Your task to perform on an android device: turn off javascript in the chrome app Image 0: 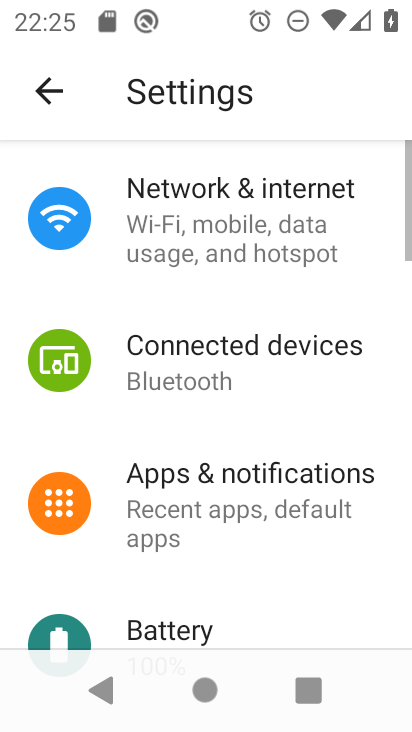
Step 0: press home button
Your task to perform on an android device: turn off javascript in the chrome app Image 1: 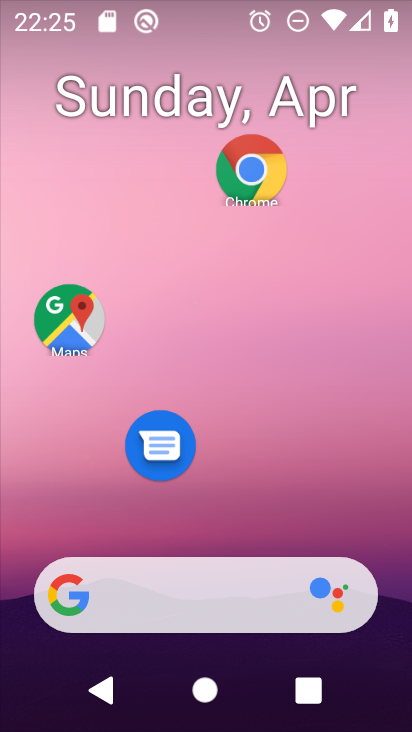
Step 1: click (250, 166)
Your task to perform on an android device: turn off javascript in the chrome app Image 2: 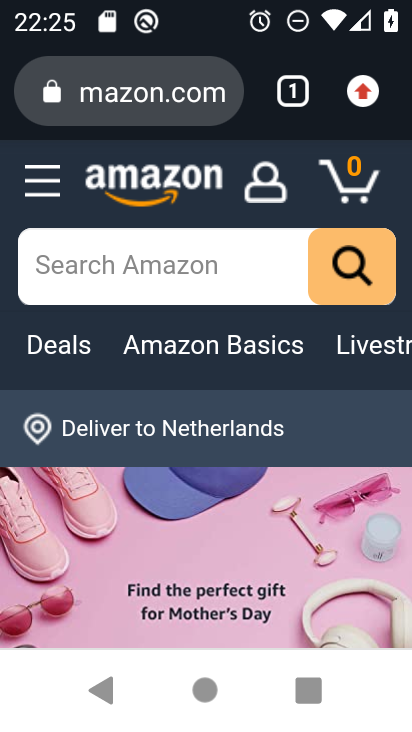
Step 2: click (363, 92)
Your task to perform on an android device: turn off javascript in the chrome app Image 3: 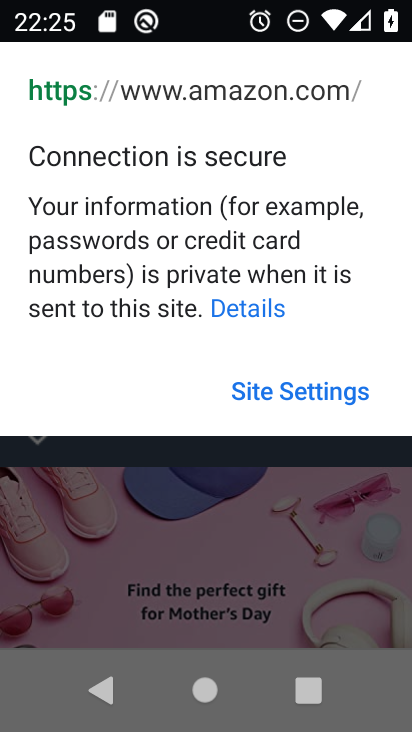
Step 3: press back button
Your task to perform on an android device: turn off javascript in the chrome app Image 4: 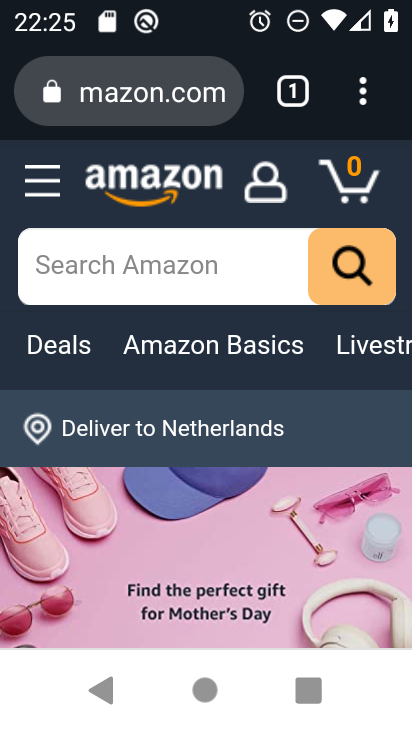
Step 4: click (359, 100)
Your task to perform on an android device: turn off javascript in the chrome app Image 5: 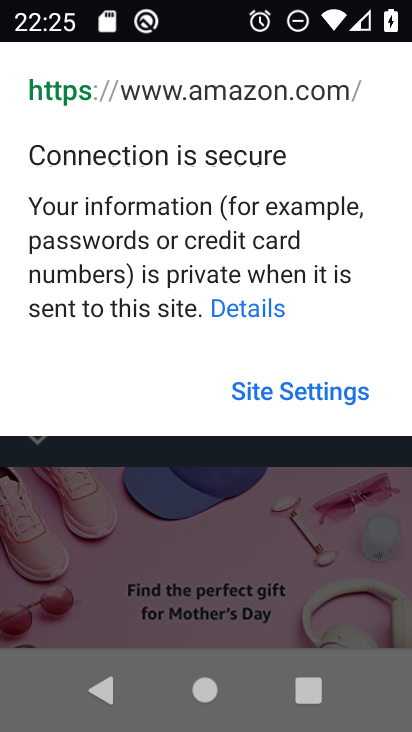
Step 5: press back button
Your task to perform on an android device: turn off javascript in the chrome app Image 6: 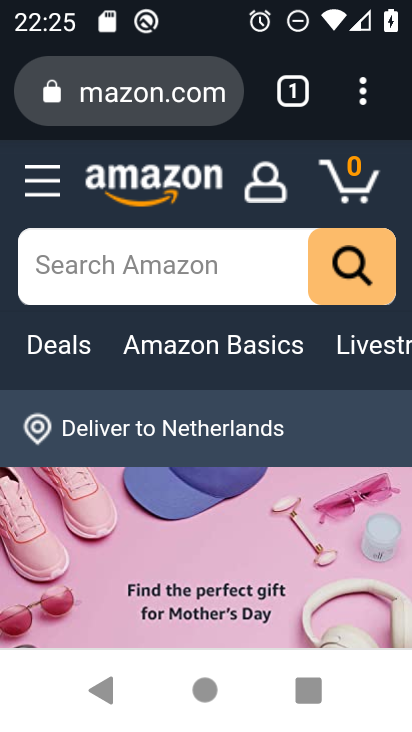
Step 6: click (362, 99)
Your task to perform on an android device: turn off javascript in the chrome app Image 7: 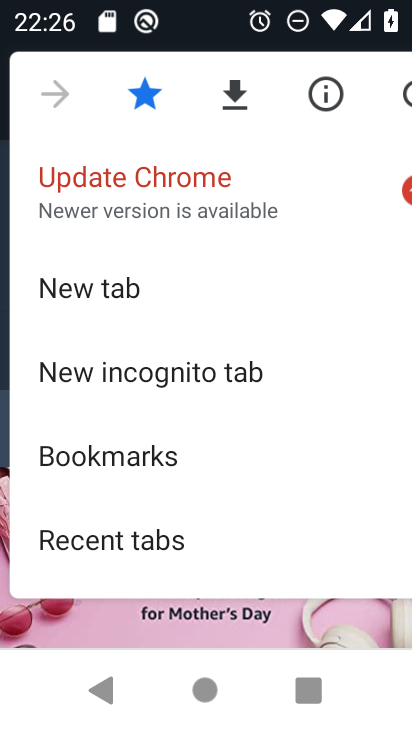
Step 7: drag from (292, 533) to (293, 2)
Your task to perform on an android device: turn off javascript in the chrome app Image 8: 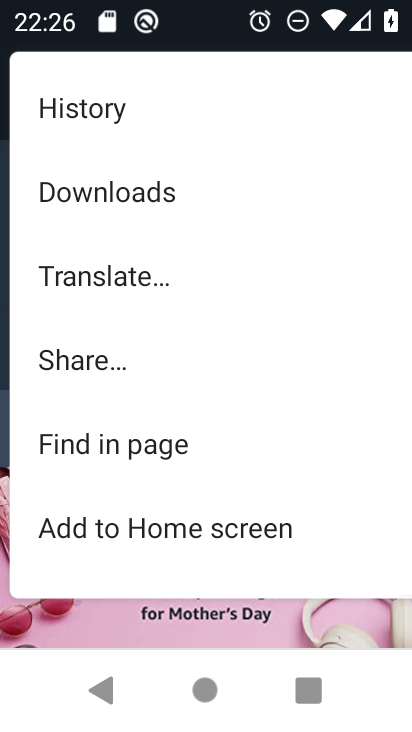
Step 8: drag from (160, 520) to (162, 62)
Your task to perform on an android device: turn off javascript in the chrome app Image 9: 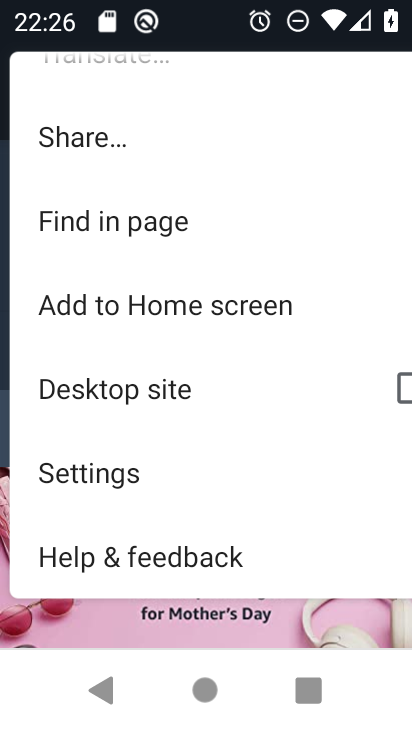
Step 9: click (114, 474)
Your task to perform on an android device: turn off javascript in the chrome app Image 10: 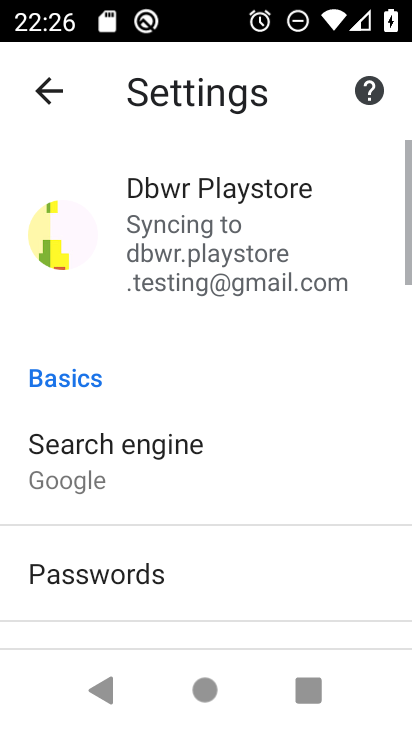
Step 10: drag from (267, 552) to (282, 0)
Your task to perform on an android device: turn off javascript in the chrome app Image 11: 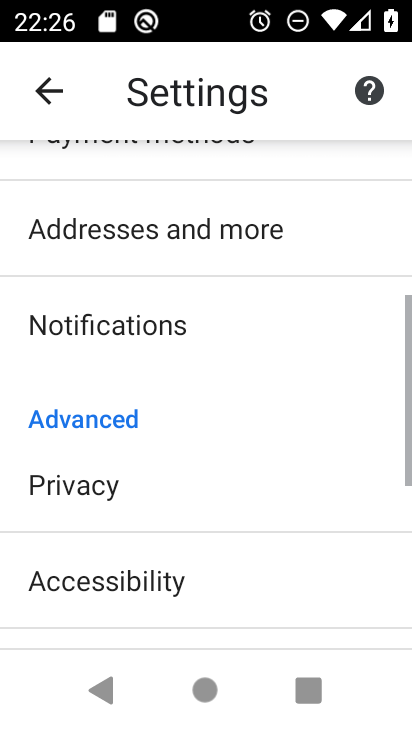
Step 11: drag from (249, 566) to (259, 169)
Your task to perform on an android device: turn off javascript in the chrome app Image 12: 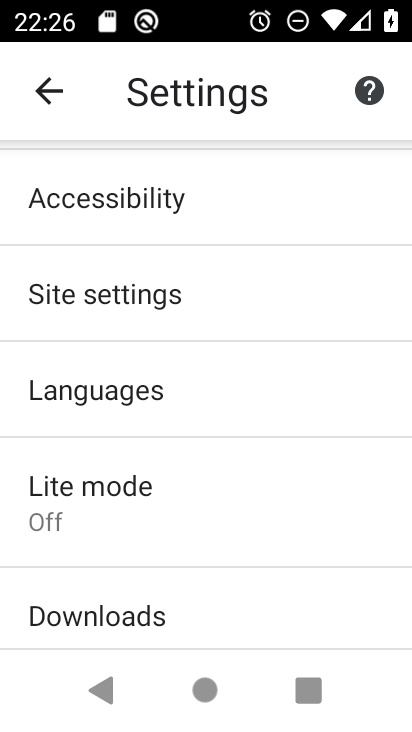
Step 12: click (125, 295)
Your task to perform on an android device: turn off javascript in the chrome app Image 13: 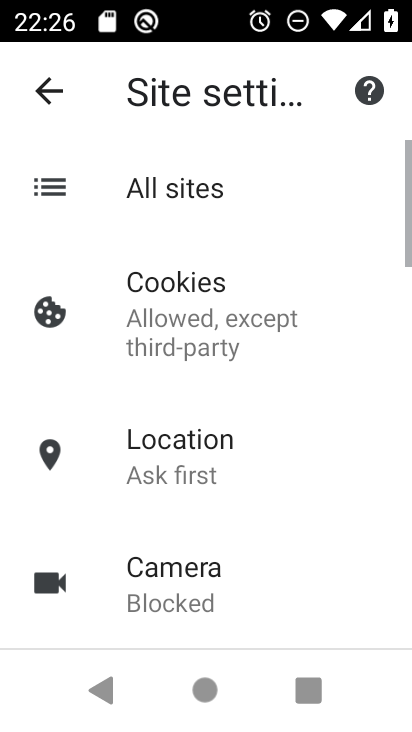
Step 13: drag from (297, 479) to (281, 20)
Your task to perform on an android device: turn off javascript in the chrome app Image 14: 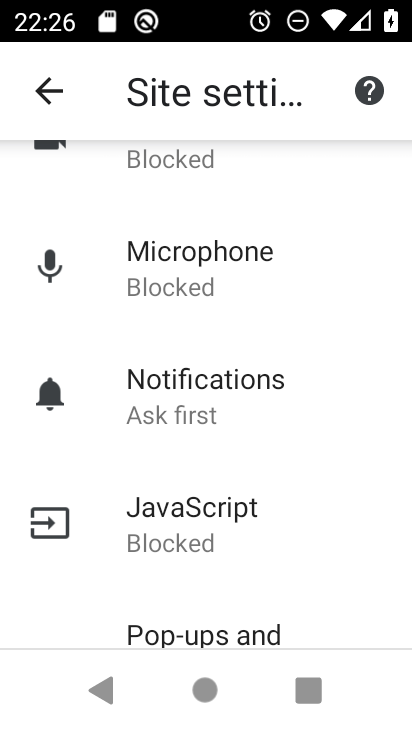
Step 14: click (223, 581)
Your task to perform on an android device: turn off javascript in the chrome app Image 15: 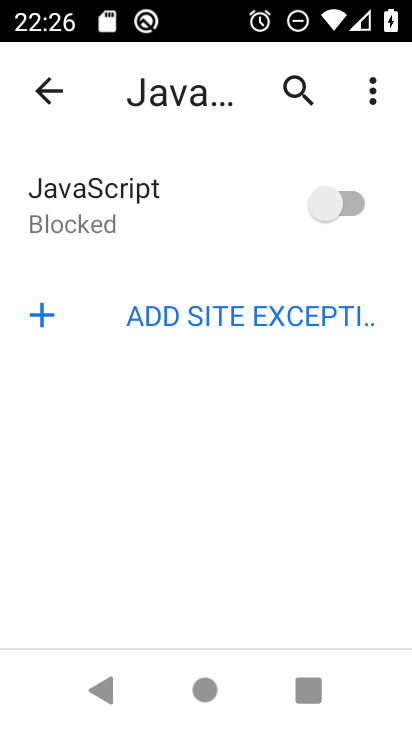
Step 15: task complete